Your task to perform on an android device: Is it going to rain tomorrow? Image 0: 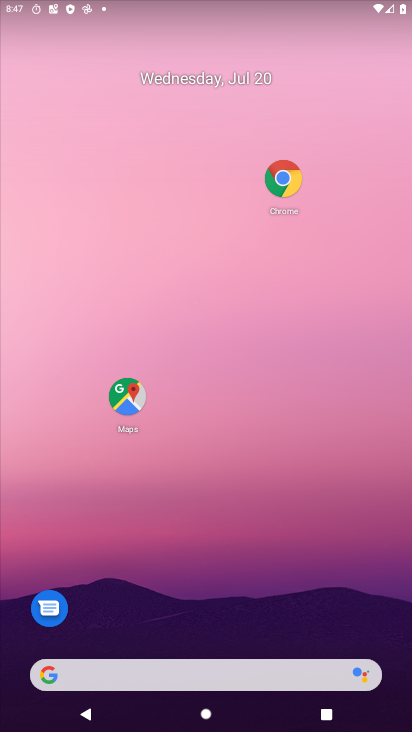
Step 0: drag from (250, 587) to (196, 130)
Your task to perform on an android device: Is it going to rain tomorrow? Image 1: 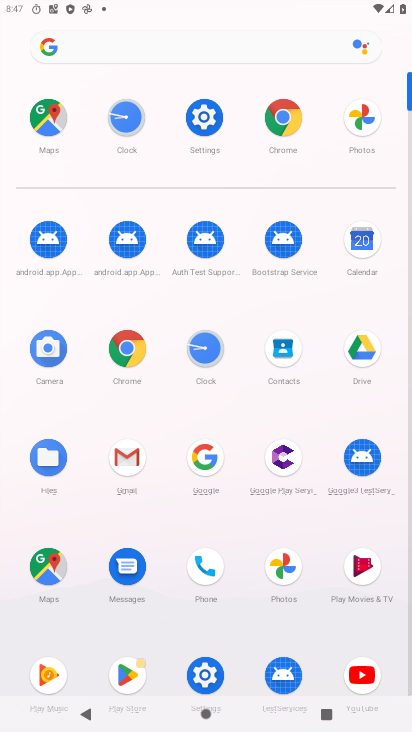
Step 1: click (119, 352)
Your task to perform on an android device: Is it going to rain tomorrow? Image 2: 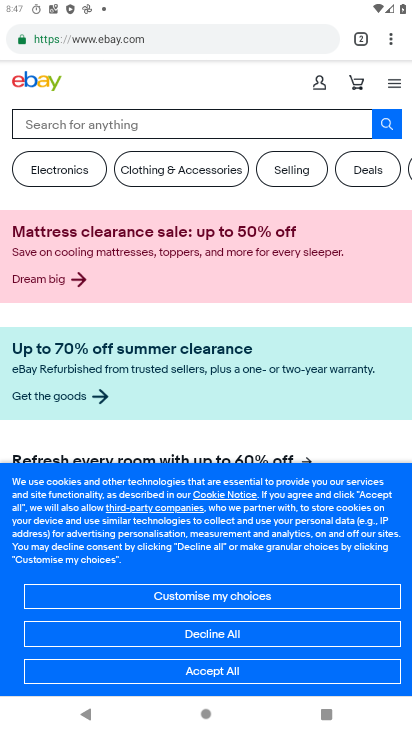
Step 2: click (361, 39)
Your task to perform on an android device: Is it going to rain tomorrow? Image 3: 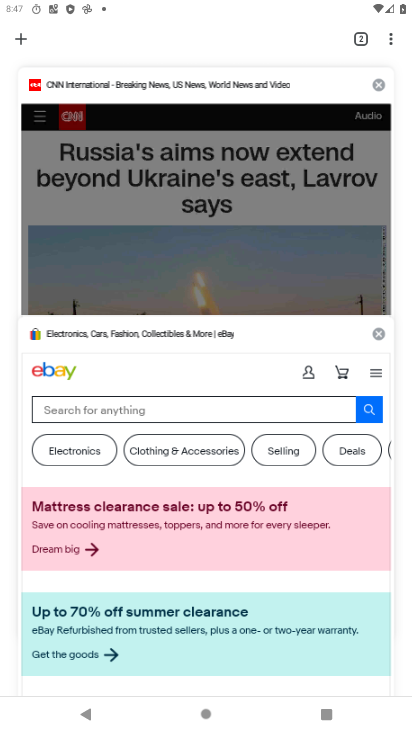
Step 3: click (24, 43)
Your task to perform on an android device: Is it going to rain tomorrow? Image 4: 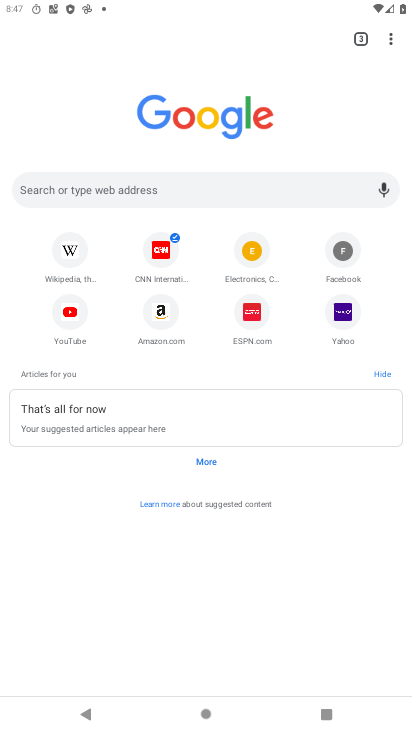
Step 4: click (163, 197)
Your task to perform on an android device: Is it going to rain tomorrow? Image 5: 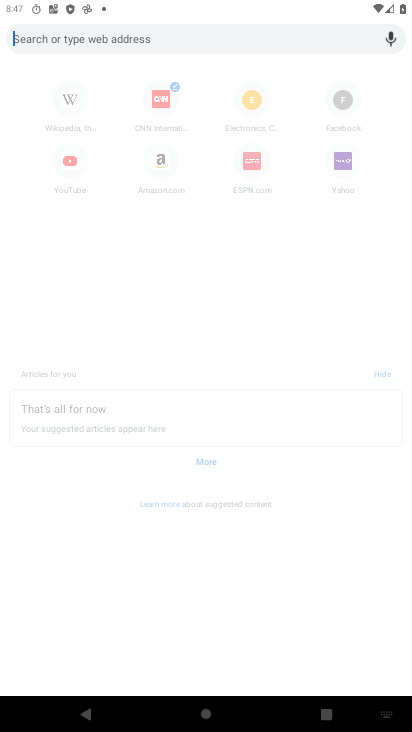
Step 5: type "weather"
Your task to perform on an android device: Is it going to rain tomorrow? Image 6: 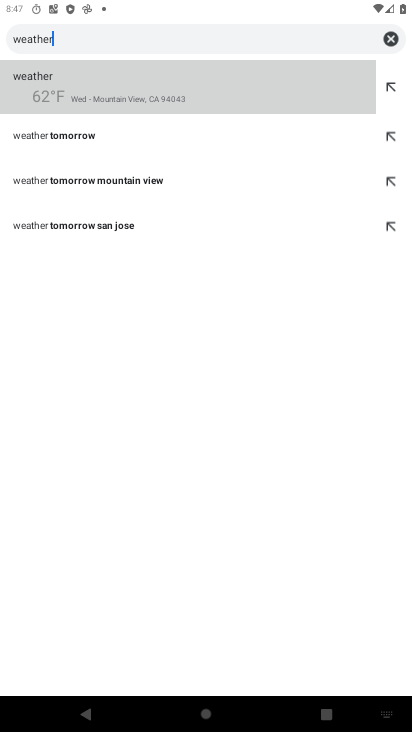
Step 6: type ""
Your task to perform on an android device: Is it going to rain tomorrow? Image 7: 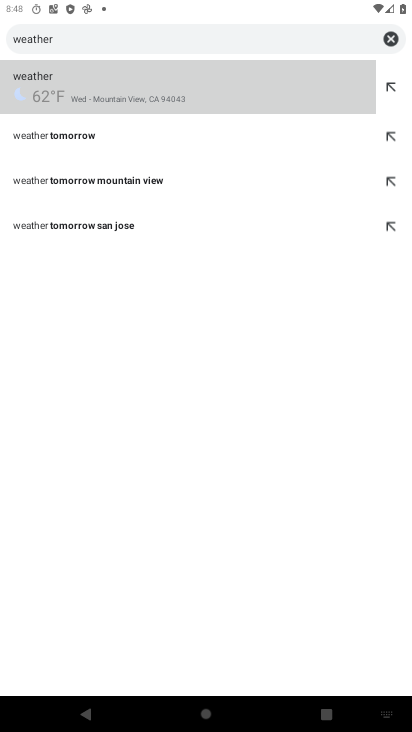
Step 7: click (131, 91)
Your task to perform on an android device: Is it going to rain tomorrow? Image 8: 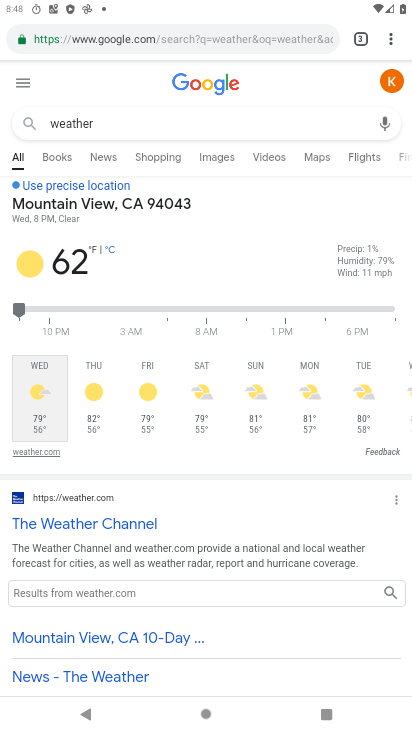
Step 8: task complete